Your task to perform on an android device: move a message to another label in the gmail app Image 0: 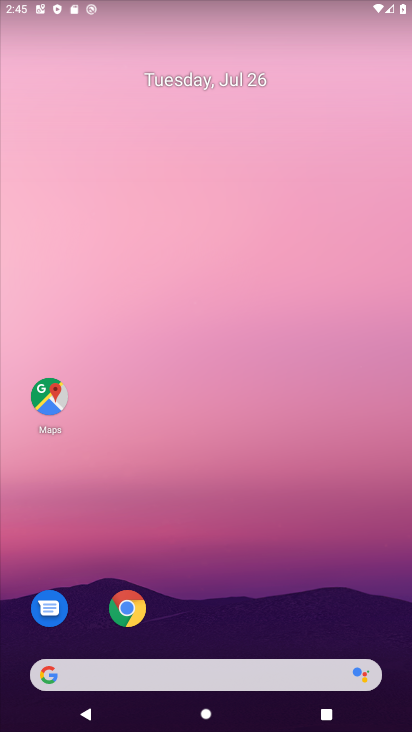
Step 0: drag from (229, 607) to (261, 329)
Your task to perform on an android device: move a message to another label in the gmail app Image 1: 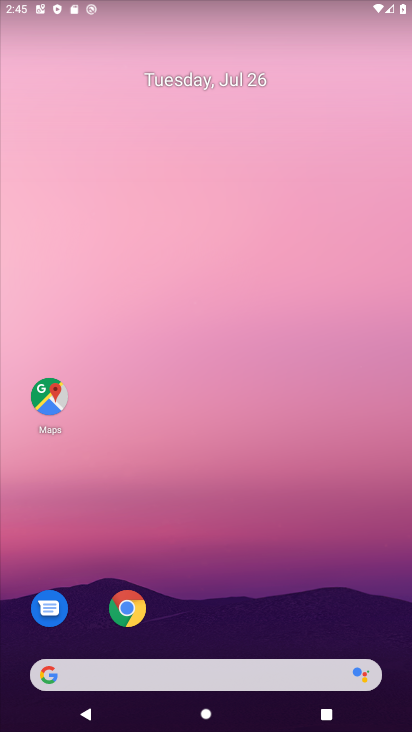
Step 1: drag from (238, 470) to (265, 140)
Your task to perform on an android device: move a message to another label in the gmail app Image 2: 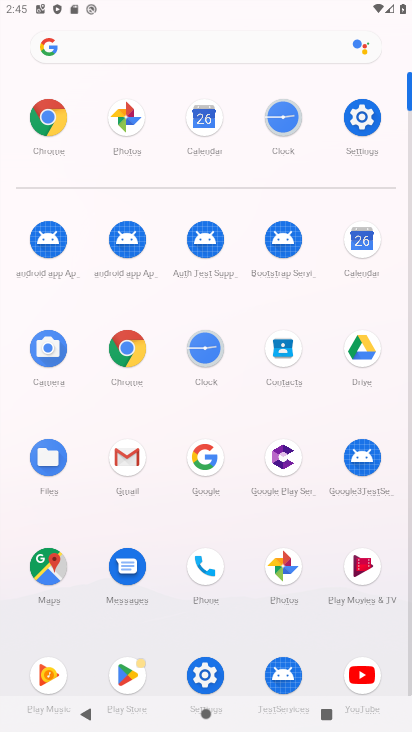
Step 2: click (133, 459)
Your task to perform on an android device: move a message to another label in the gmail app Image 3: 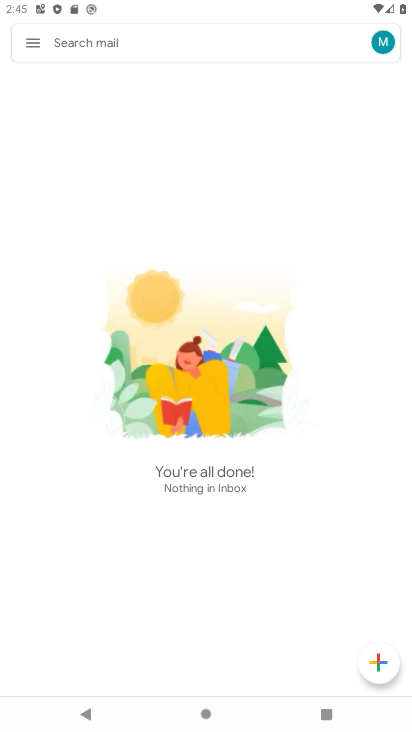
Step 3: task complete